Your task to perform on an android device: turn notification dots off Image 0: 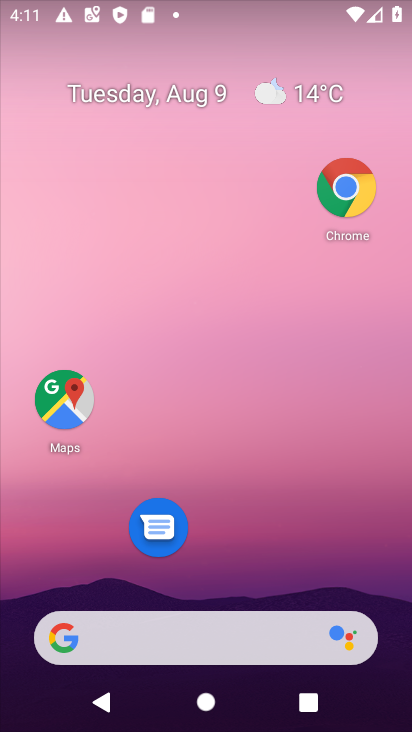
Step 0: drag from (237, 520) to (145, 177)
Your task to perform on an android device: turn notification dots off Image 1: 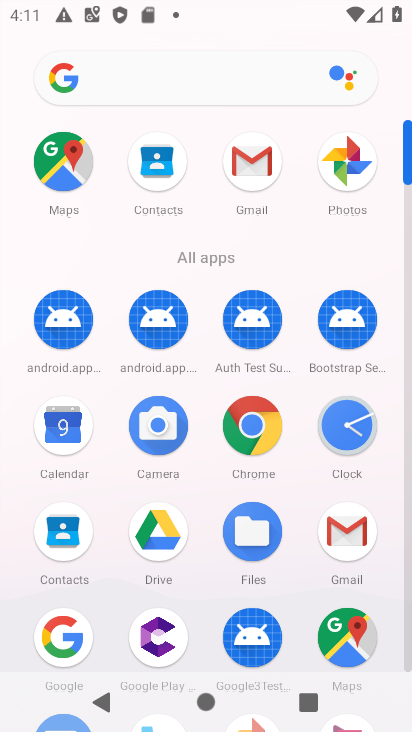
Step 1: drag from (113, 221) to (76, 42)
Your task to perform on an android device: turn notification dots off Image 2: 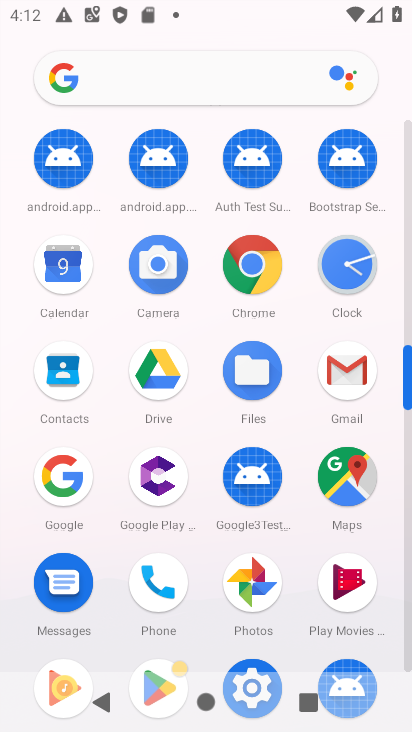
Step 2: drag from (218, 639) to (210, 230)
Your task to perform on an android device: turn notification dots off Image 3: 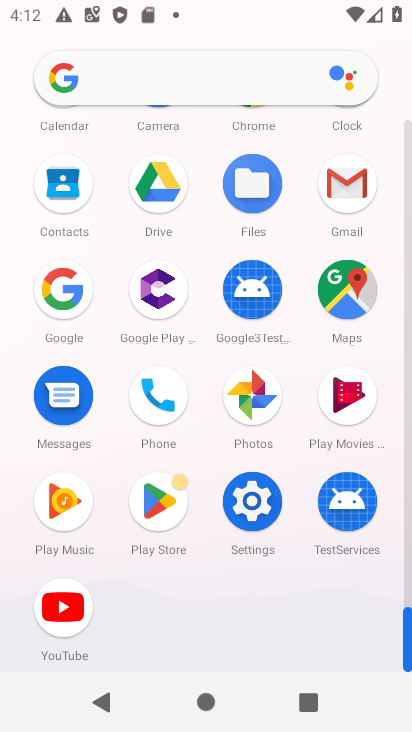
Step 3: click (266, 493)
Your task to perform on an android device: turn notification dots off Image 4: 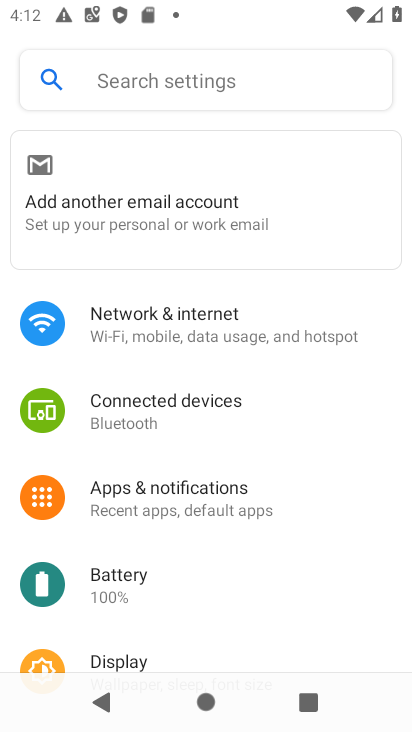
Step 4: click (200, 499)
Your task to perform on an android device: turn notification dots off Image 5: 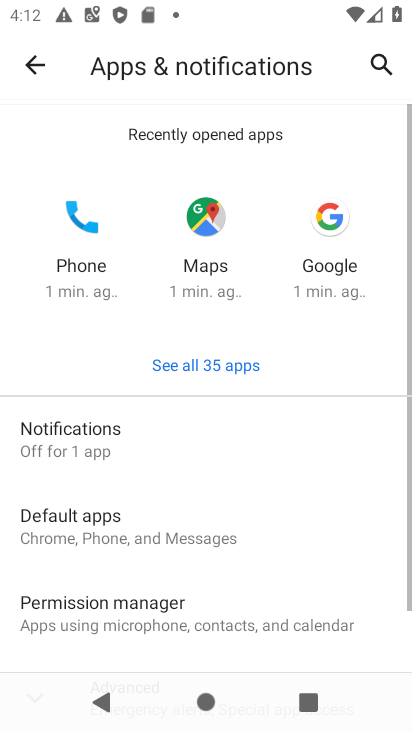
Step 5: click (148, 447)
Your task to perform on an android device: turn notification dots off Image 6: 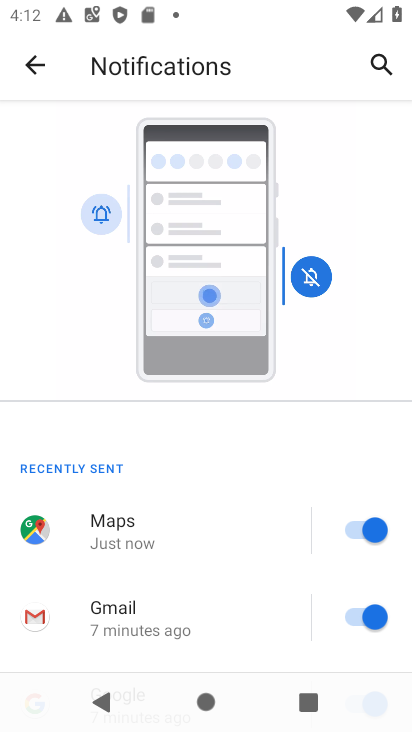
Step 6: drag from (216, 604) to (209, 36)
Your task to perform on an android device: turn notification dots off Image 7: 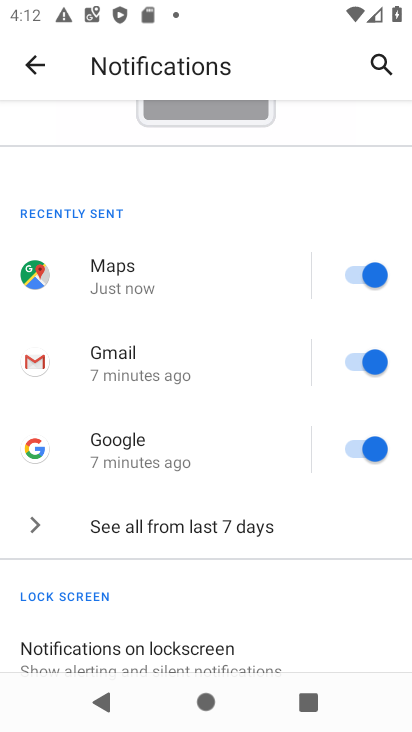
Step 7: drag from (150, 621) to (169, 112)
Your task to perform on an android device: turn notification dots off Image 8: 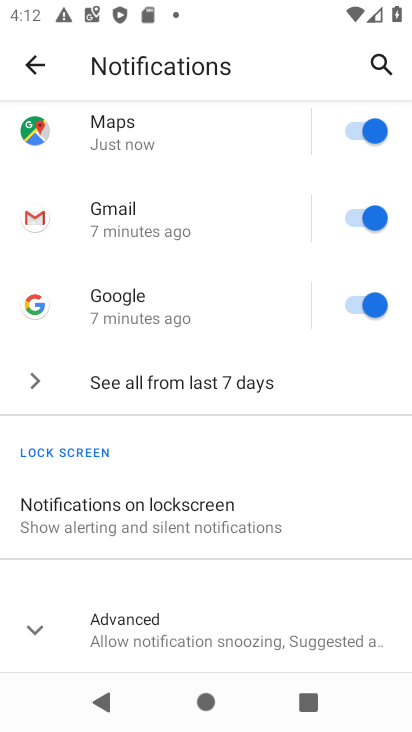
Step 8: drag from (339, 574) to (270, 186)
Your task to perform on an android device: turn notification dots off Image 9: 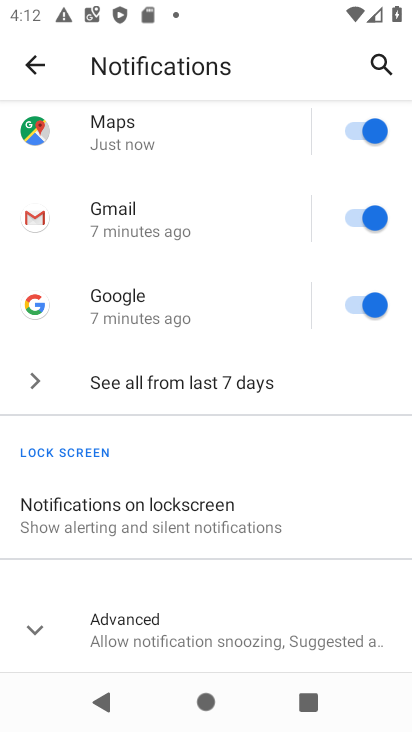
Step 9: click (198, 604)
Your task to perform on an android device: turn notification dots off Image 10: 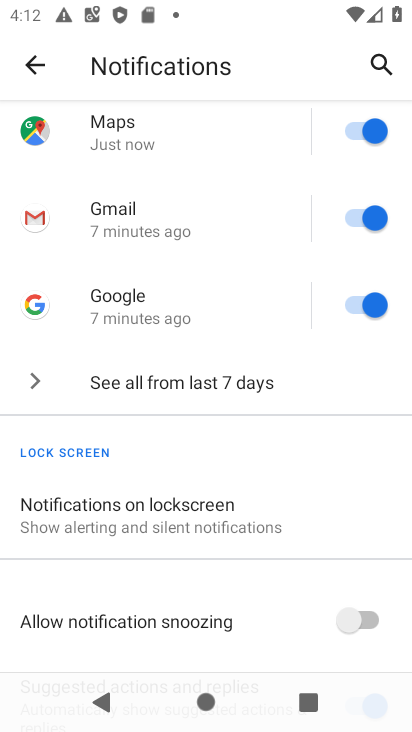
Step 10: drag from (113, 650) to (265, 256)
Your task to perform on an android device: turn notification dots off Image 11: 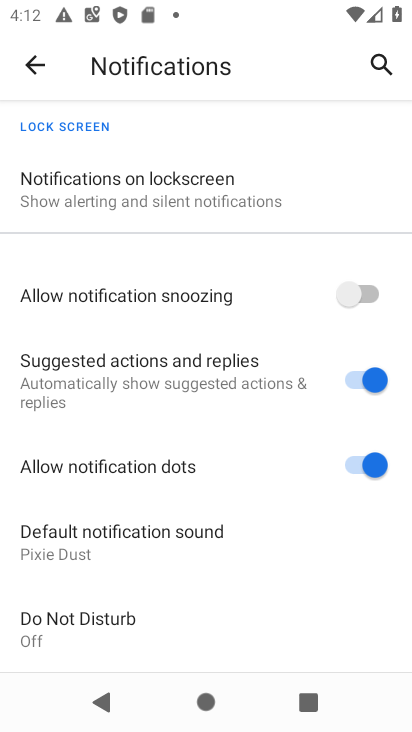
Step 11: click (359, 452)
Your task to perform on an android device: turn notification dots off Image 12: 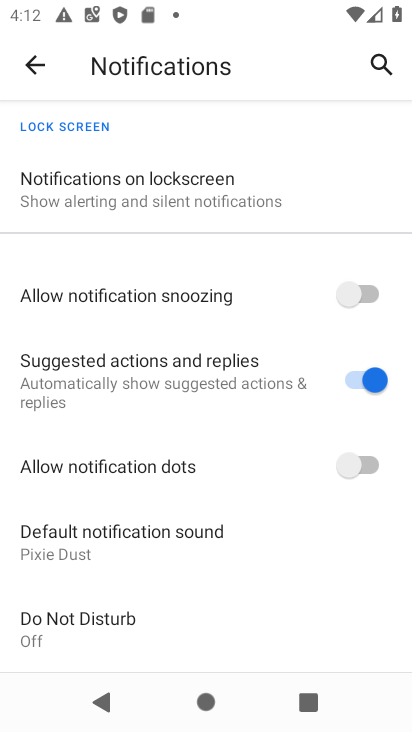
Step 12: task complete